Your task to perform on an android device: Show me popular videos on Youtube Image 0: 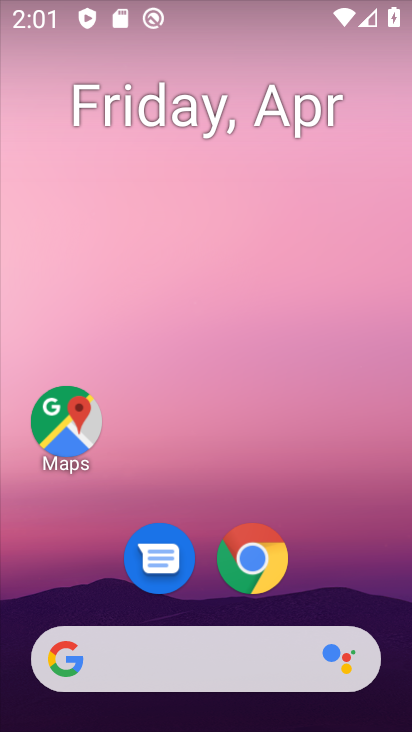
Step 0: drag from (190, 570) to (242, 73)
Your task to perform on an android device: Show me popular videos on Youtube Image 1: 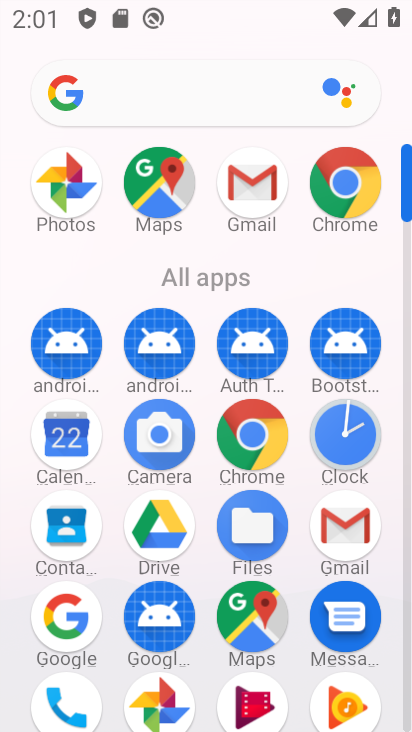
Step 1: drag from (184, 580) to (318, 70)
Your task to perform on an android device: Show me popular videos on Youtube Image 2: 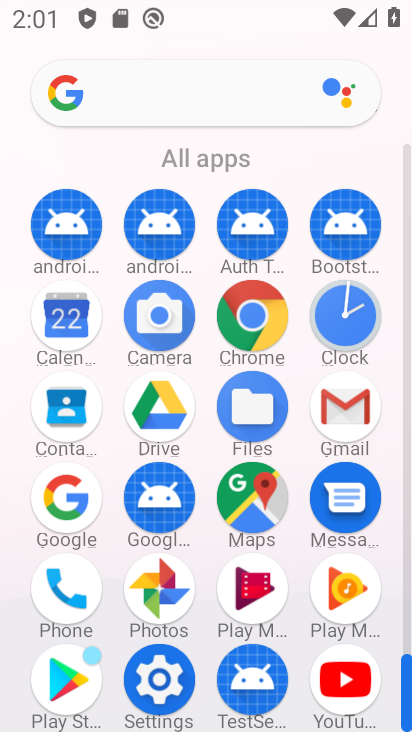
Step 2: click (352, 684)
Your task to perform on an android device: Show me popular videos on Youtube Image 3: 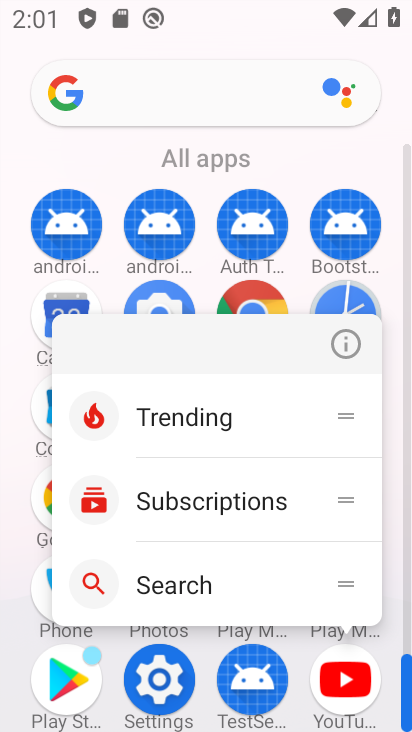
Step 3: click (349, 684)
Your task to perform on an android device: Show me popular videos on Youtube Image 4: 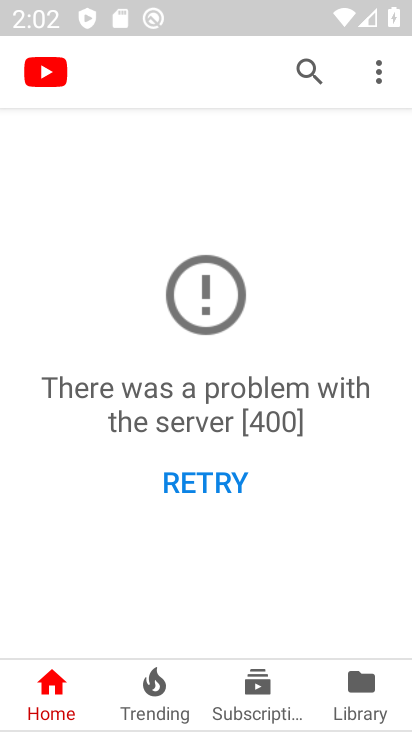
Step 4: click (155, 686)
Your task to perform on an android device: Show me popular videos on Youtube Image 5: 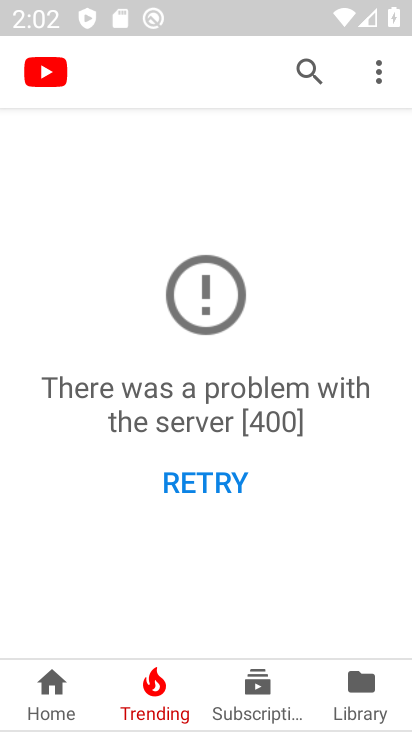
Step 5: task complete